Your task to perform on an android device: remove spam from my inbox in the gmail app Image 0: 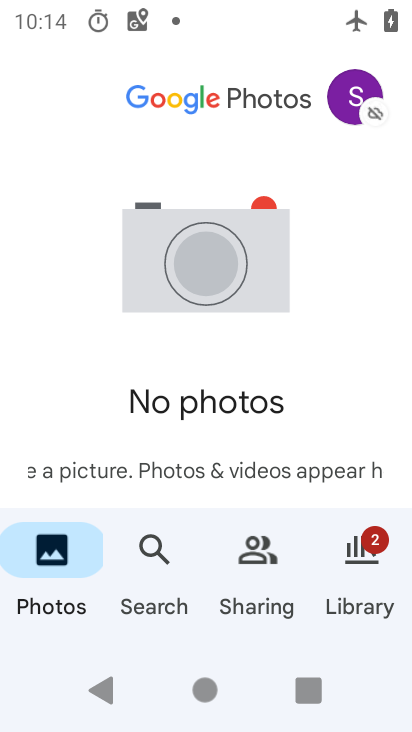
Step 0: press back button
Your task to perform on an android device: remove spam from my inbox in the gmail app Image 1: 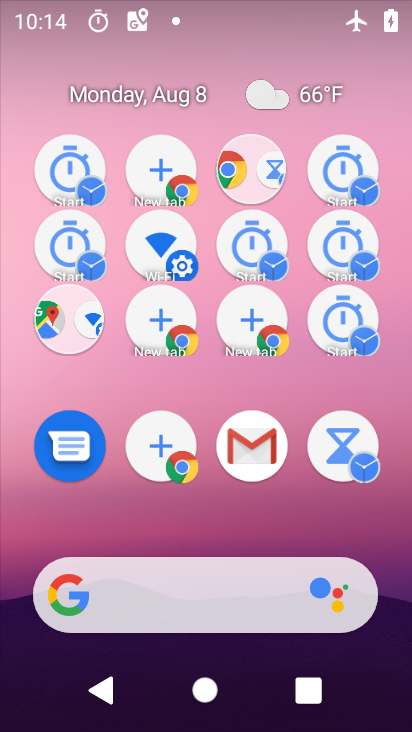
Step 1: drag from (261, 652) to (261, 110)
Your task to perform on an android device: remove spam from my inbox in the gmail app Image 2: 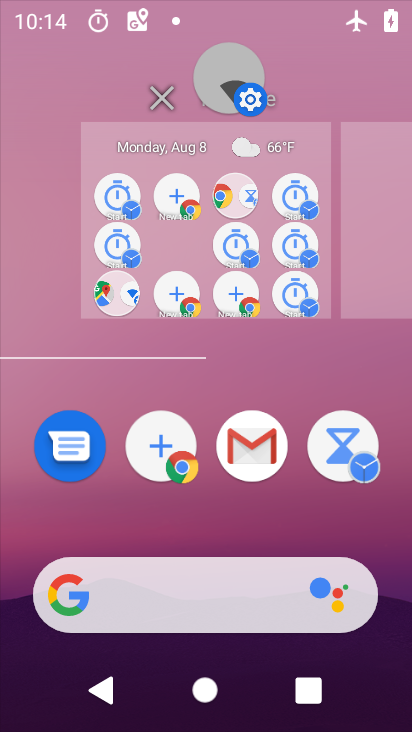
Step 2: drag from (283, 559) to (248, 268)
Your task to perform on an android device: remove spam from my inbox in the gmail app Image 3: 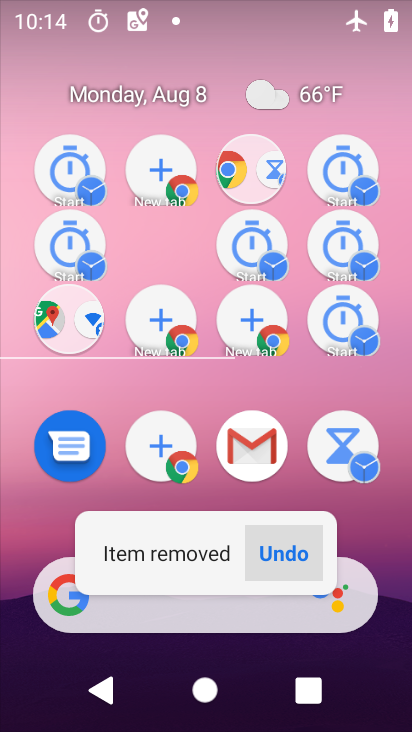
Step 3: click (255, 41)
Your task to perform on an android device: remove spam from my inbox in the gmail app Image 4: 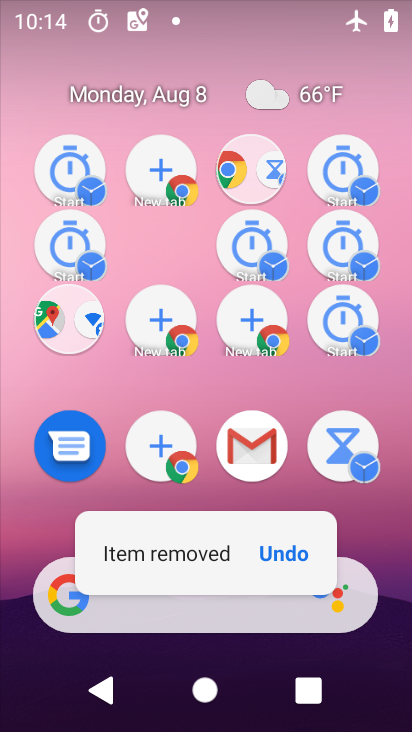
Step 4: click (264, 144)
Your task to perform on an android device: remove spam from my inbox in the gmail app Image 5: 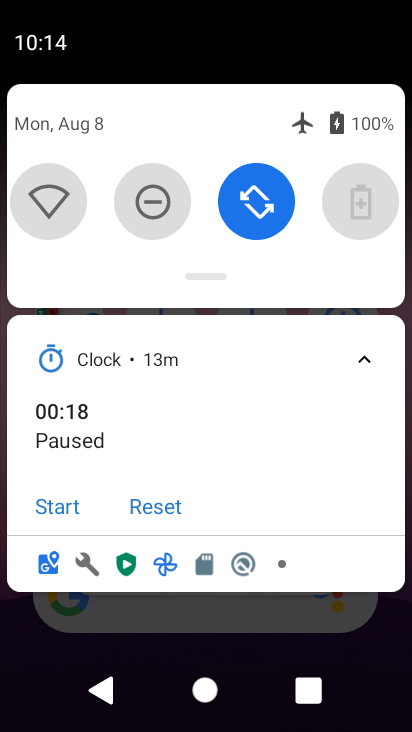
Step 5: click (216, 61)
Your task to perform on an android device: remove spam from my inbox in the gmail app Image 6: 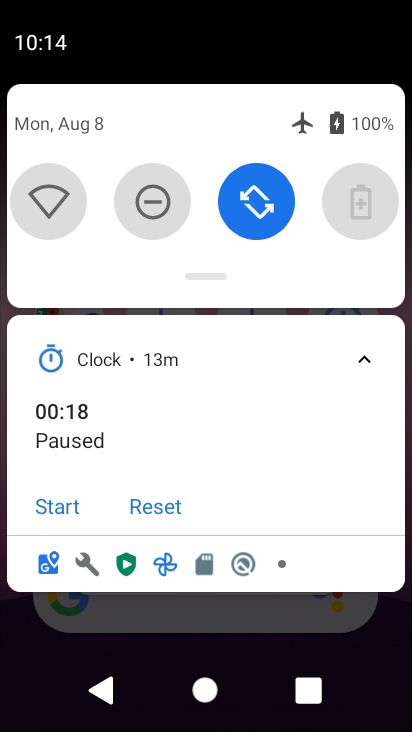
Step 6: click (214, 59)
Your task to perform on an android device: remove spam from my inbox in the gmail app Image 7: 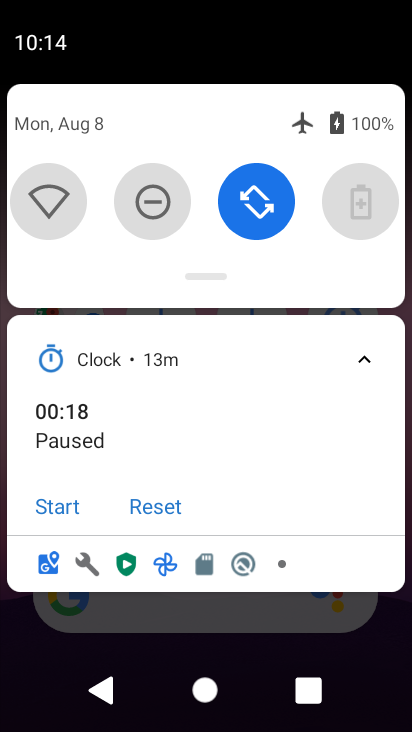
Step 7: click (214, 57)
Your task to perform on an android device: remove spam from my inbox in the gmail app Image 8: 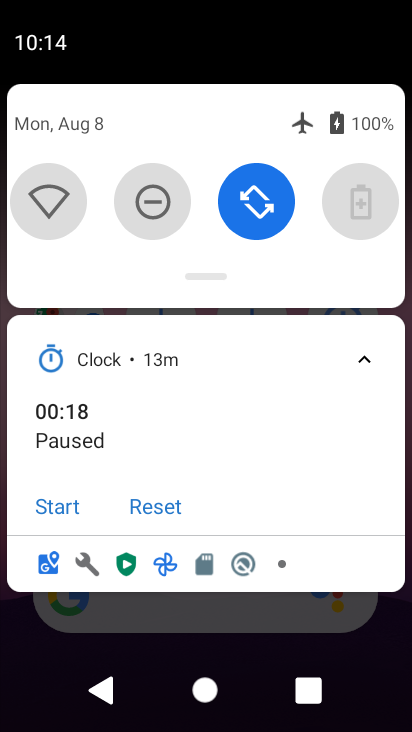
Step 8: click (273, 54)
Your task to perform on an android device: remove spam from my inbox in the gmail app Image 9: 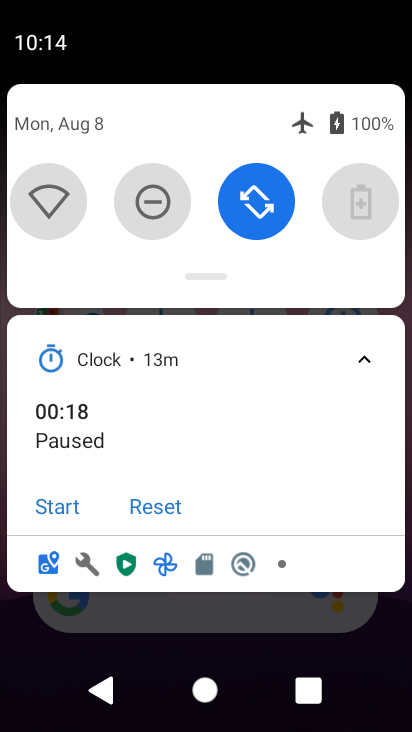
Step 9: click (240, 73)
Your task to perform on an android device: remove spam from my inbox in the gmail app Image 10: 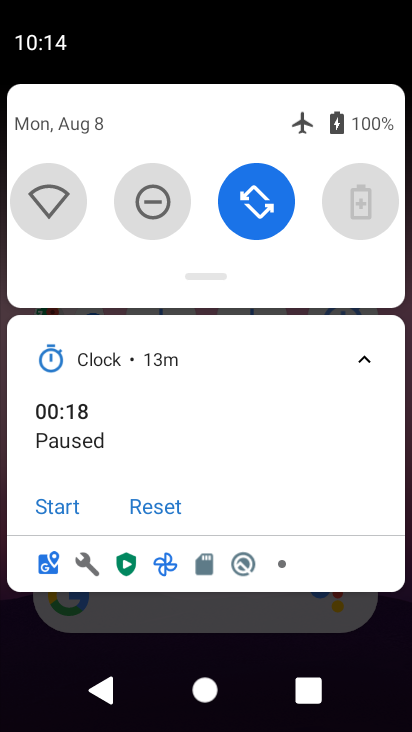
Step 10: click (239, 62)
Your task to perform on an android device: remove spam from my inbox in the gmail app Image 11: 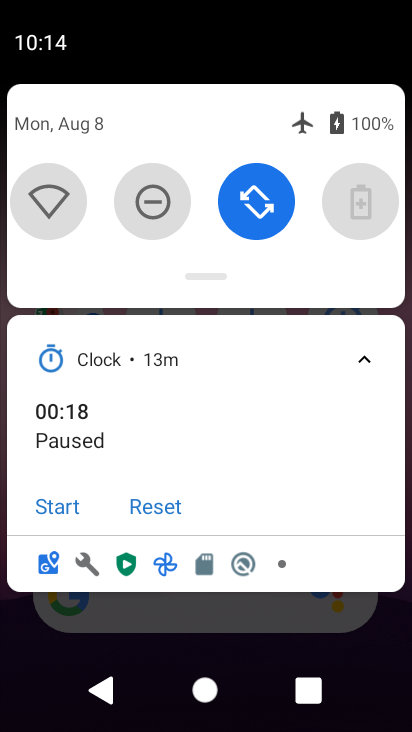
Step 11: press back button
Your task to perform on an android device: remove spam from my inbox in the gmail app Image 12: 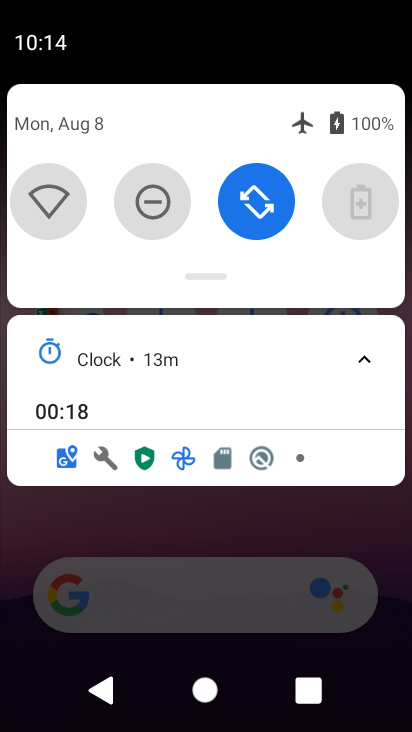
Step 12: press back button
Your task to perform on an android device: remove spam from my inbox in the gmail app Image 13: 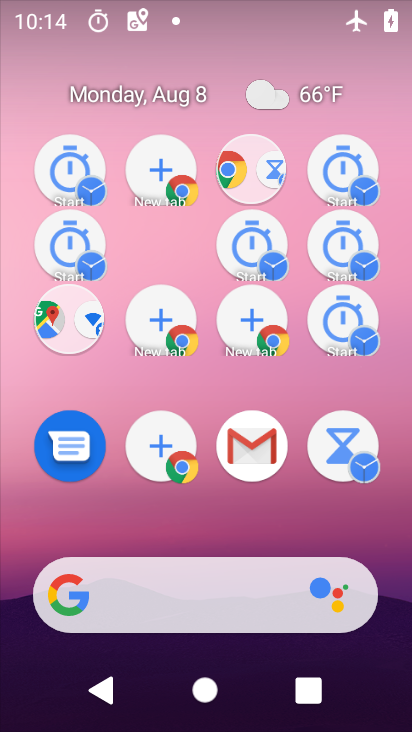
Step 13: press back button
Your task to perform on an android device: remove spam from my inbox in the gmail app Image 14: 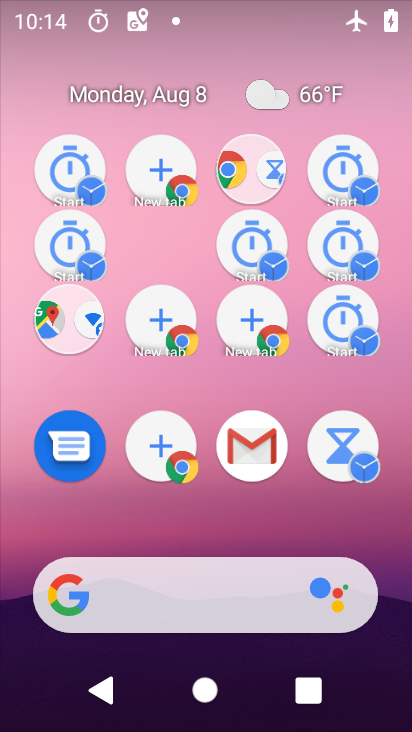
Step 14: drag from (252, 606) to (231, 204)
Your task to perform on an android device: remove spam from my inbox in the gmail app Image 15: 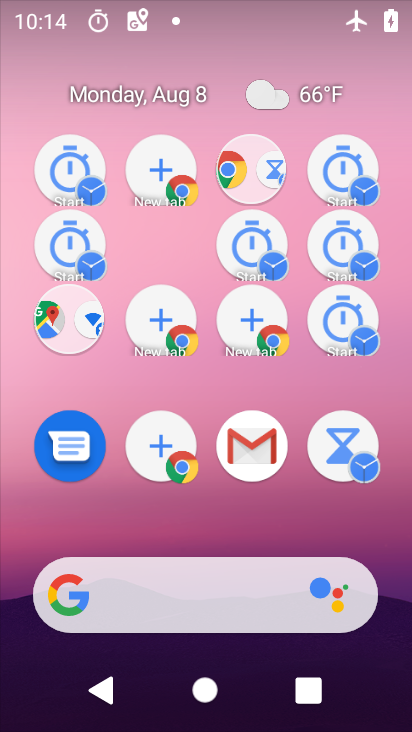
Step 15: click (212, 314)
Your task to perform on an android device: remove spam from my inbox in the gmail app Image 16: 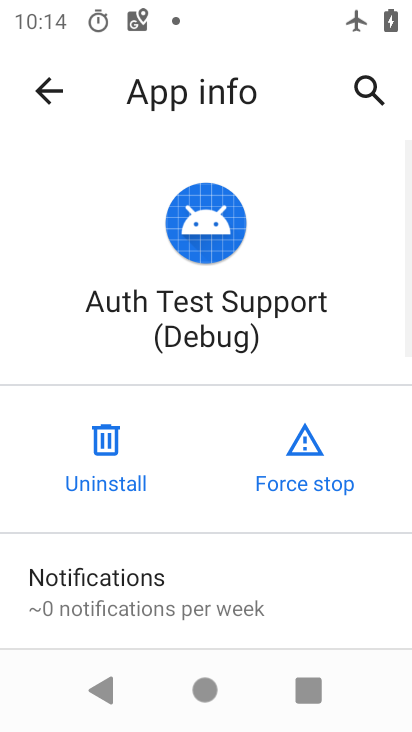
Step 16: click (54, 97)
Your task to perform on an android device: remove spam from my inbox in the gmail app Image 17: 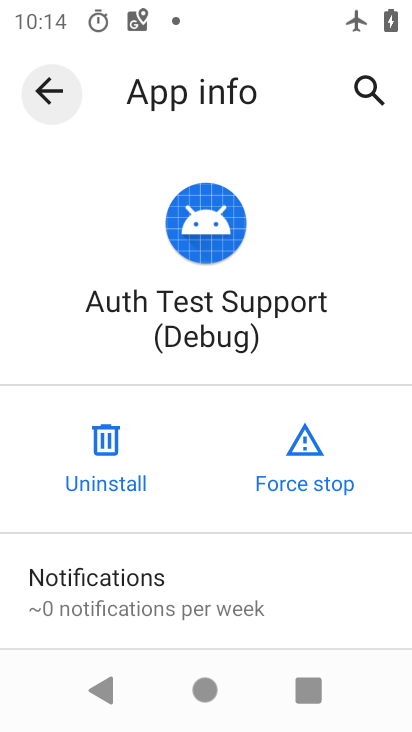
Step 17: click (54, 97)
Your task to perform on an android device: remove spam from my inbox in the gmail app Image 18: 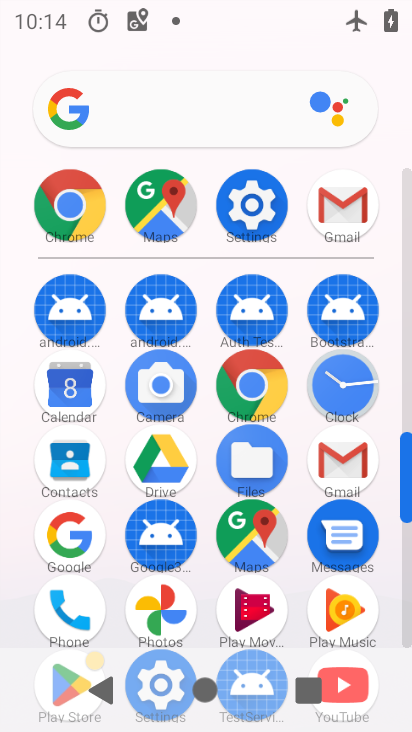
Step 18: click (346, 460)
Your task to perform on an android device: remove spam from my inbox in the gmail app Image 19: 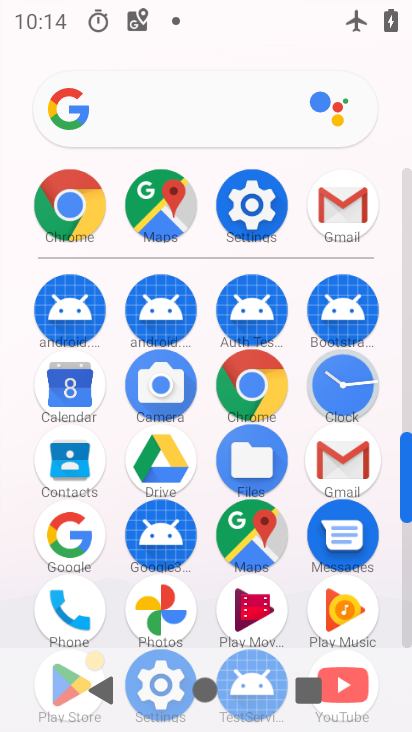
Step 19: click (346, 460)
Your task to perform on an android device: remove spam from my inbox in the gmail app Image 20: 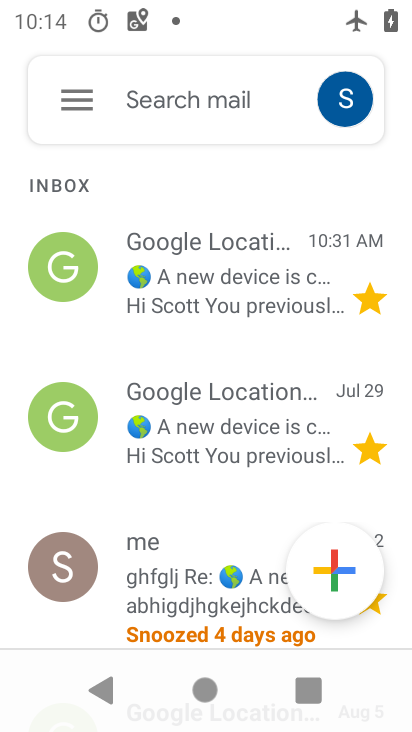
Step 20: click (67, 93)
Your task to perform on an android device: remove spam from my inbox in the gmail app Image 21: 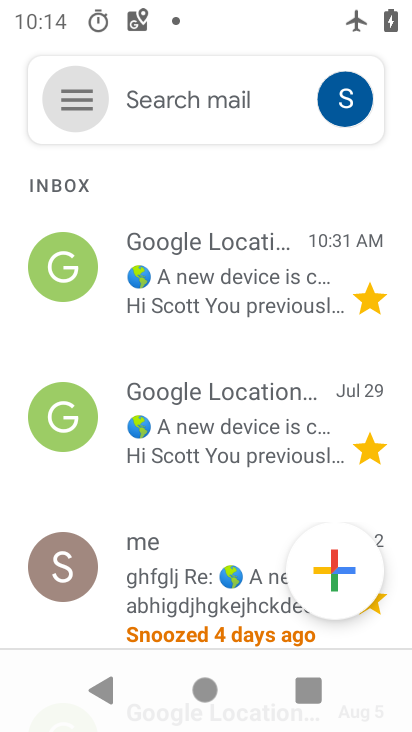
Step 21: click (71, 93)
Your task to perform on an android device: remove spam from my inbox in the gmail app Image 22: 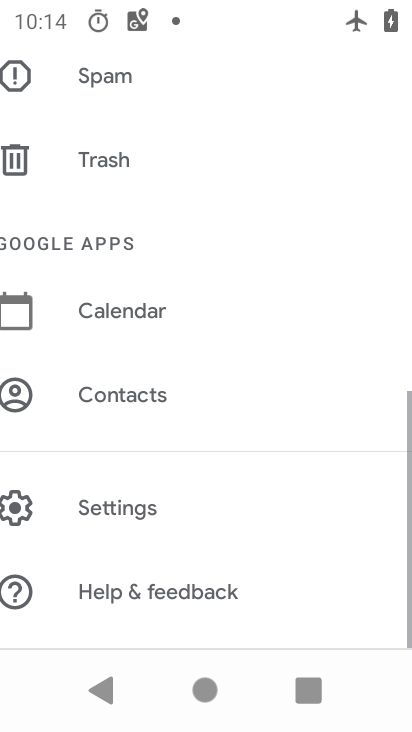
Step 22: click (72, 93)
Your task to perform on an android device: remove spam from my inbox in the gmail app Image 23: 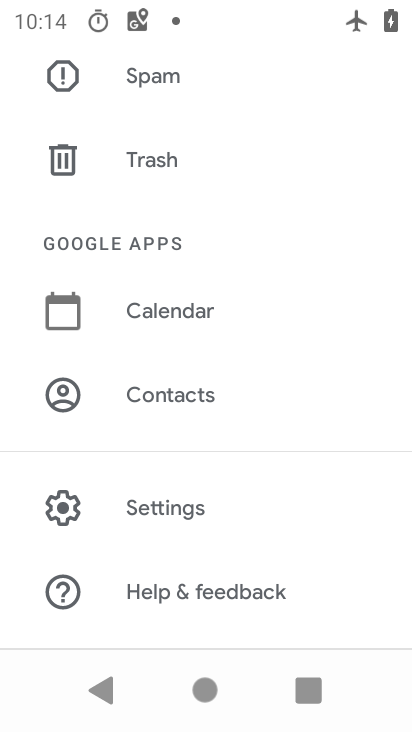
Step 23: drag from (135, 233) to (129, 190)
Your task to perform on an android device: remove spam from my inbox in the gmail app Image 24: 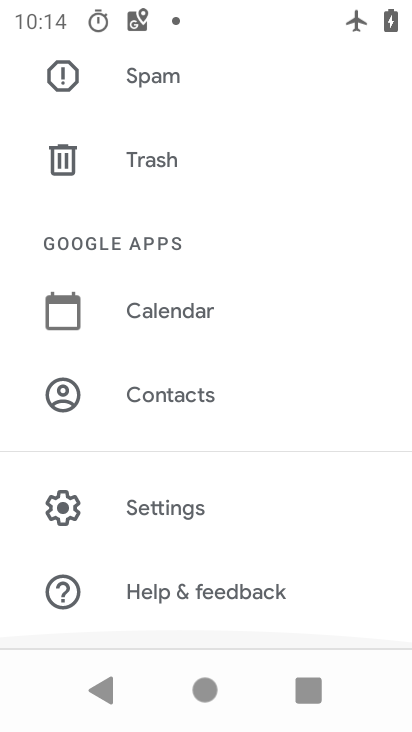
Step 24: drag from (152, 525) to (156, 286)
Your task to perform on an android device: remove spam from my inbox in the gmail app Image 25: 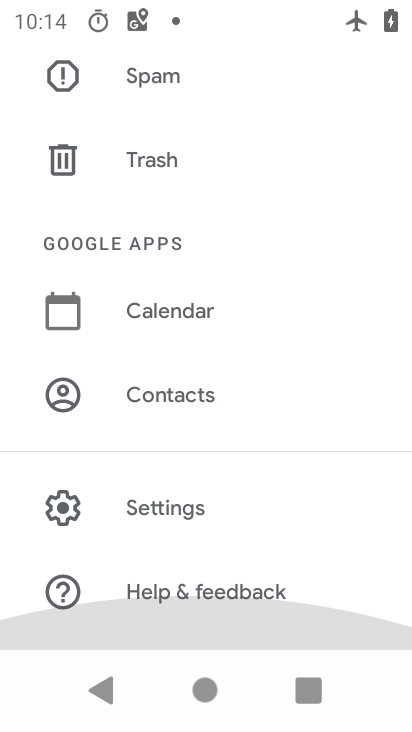
Step 25: drag from (166, 547) to (182, 388)
Your task to perform on an android device: remove spam from my inbox in the gmail app Image 26: 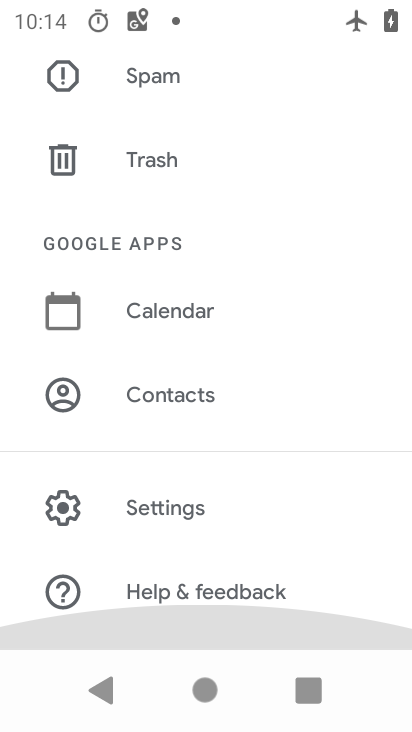
Step 26: drag from (175, 533) to (174, 295)
Your task to perform on an android device: remove spam from my inbox in the gmail app Image 27: 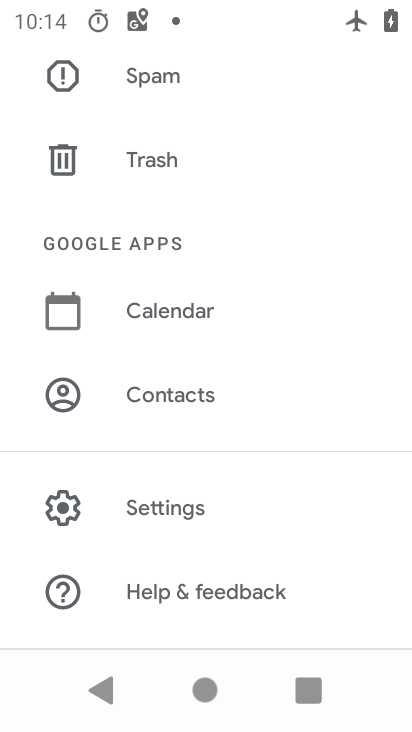
Step 27: click (152, 80)
Your task to perform on an android device: remove spam from my inbox in the gmail app Image 28: 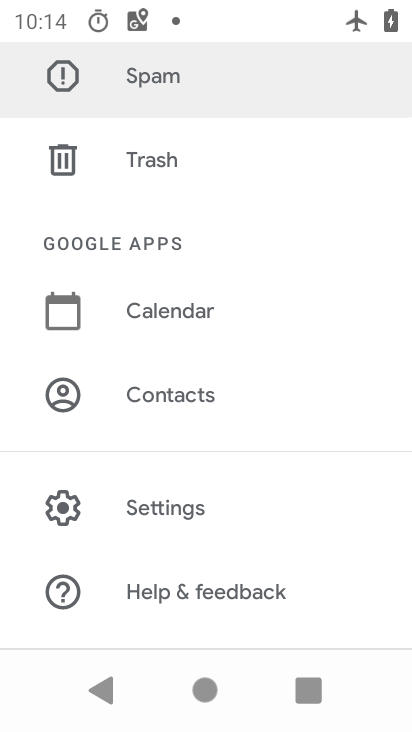
Step 28: click (153, 80)
Your task to perform on an android device: remove spam from my inbox in the gmail app Image 29: 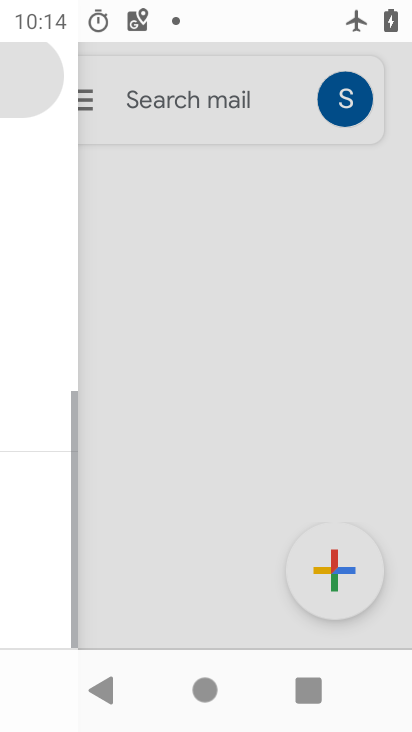
Step 29: click (153, 81)
Your task to perform on an android device: remove spam from my inbox in the gmail app Image 30: 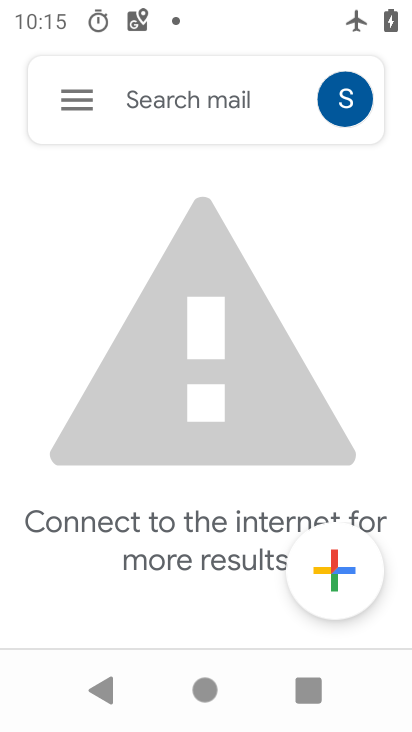
Step 30: task complete